Your task to perform on an android device: allow cookies in the chrome app Image 0: 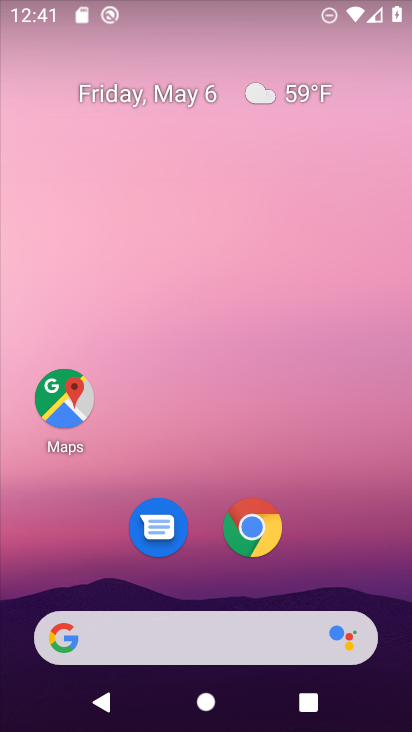
Step 0: click (250, 529)
Your task to perform on an android device: allow cookies in the chrome app Image 1: 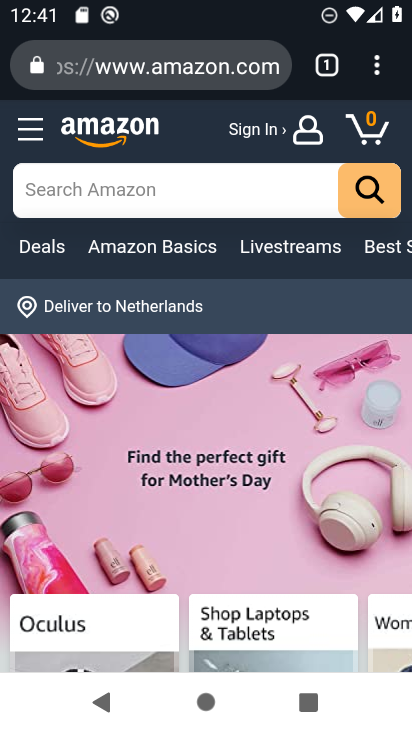
Step 1: click (381, 67)
Your task to perform on an android device: allow cookies in the chrome app Image 2: 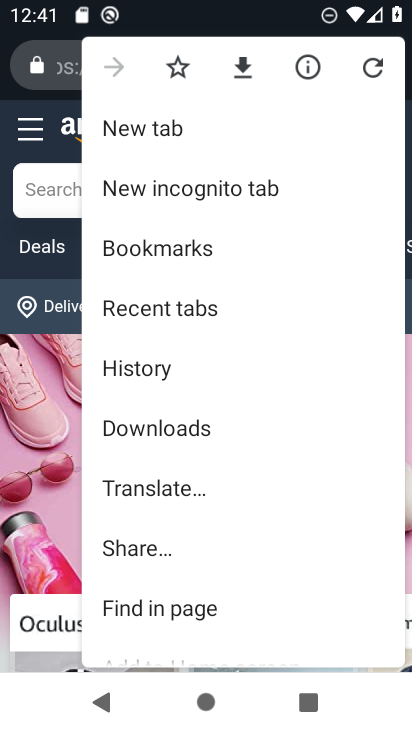
Step 2: drag from (217, 521) to (249, 413)
Your task to perform on an android device: allow cookies in the chrome app Image 3: 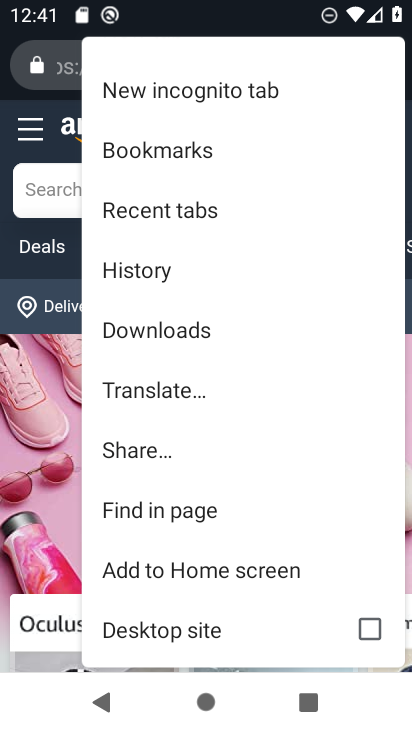
Step 3: drag from (214, 462) to (238, 352)
Your task to perform on an android device: allow cookies in the chrome app Image 4: 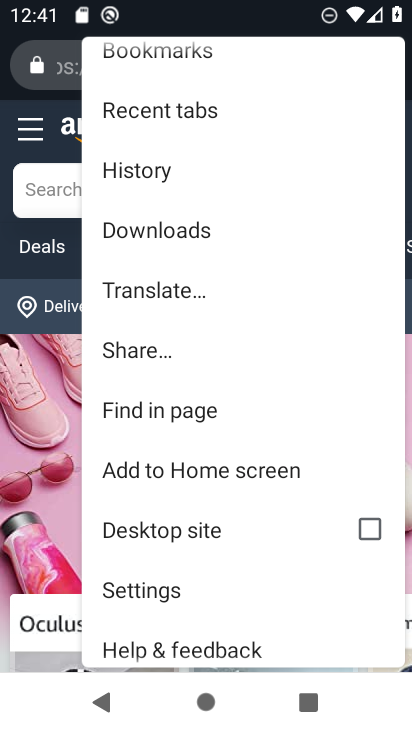
Step 4: click (146, 591)
Your task to perform on an android device: allow cookies in the chrome app Image 5: 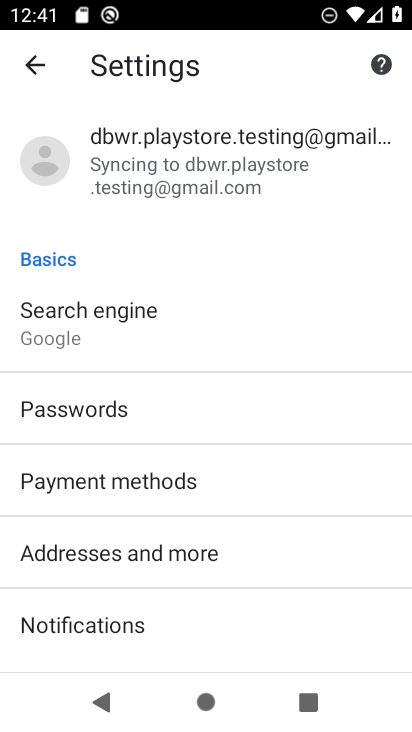
Step 5: drag from (155, 421) to (203, 325)
Your task to perform on an android device: allow cookies in the chrome app Image 6: 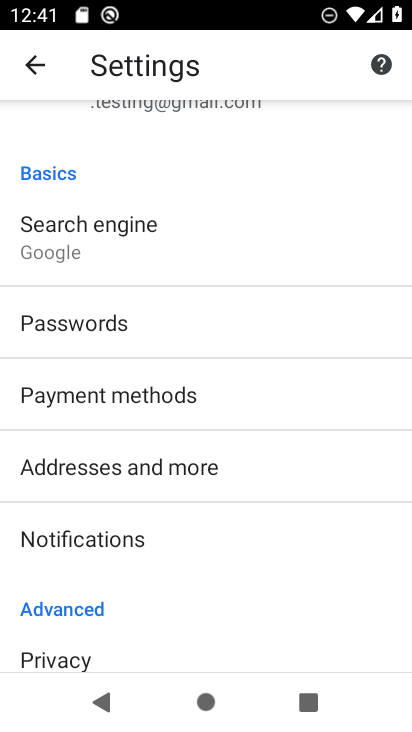
Step 6: drag from (170, 472) to (219, 370)
Your task to perform on an android device: allow cookies in the chrome app Image 7: 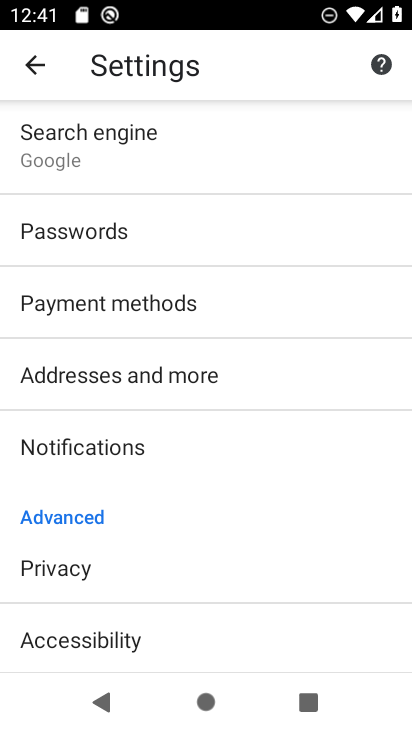
Step 7: drag from (170, 501) to (236, 389)
Your task to perform on an android device: allow cookies in the chrome app Image 8: 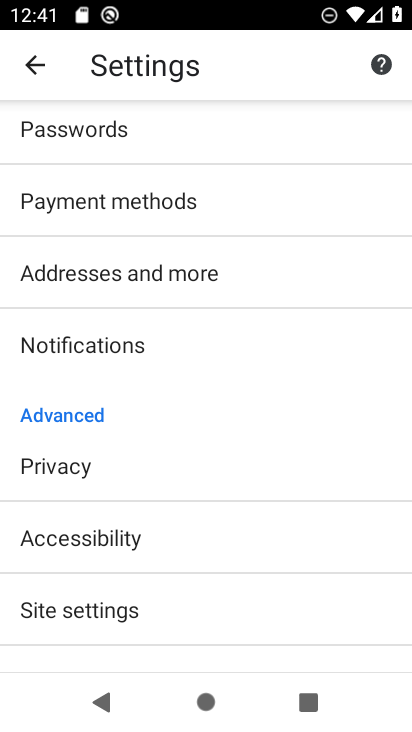
Step 8: drag from (180, 520) to (217, 434)
Your task to perform on an android device: allow cookies in the chrome app Image 9: 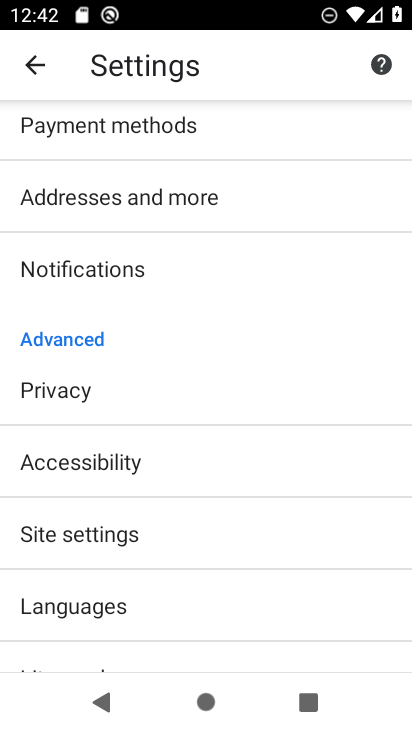
Step 9: click (65, 541)
Your task to perform on an android device: allow cookies in the chrome app Image 10: 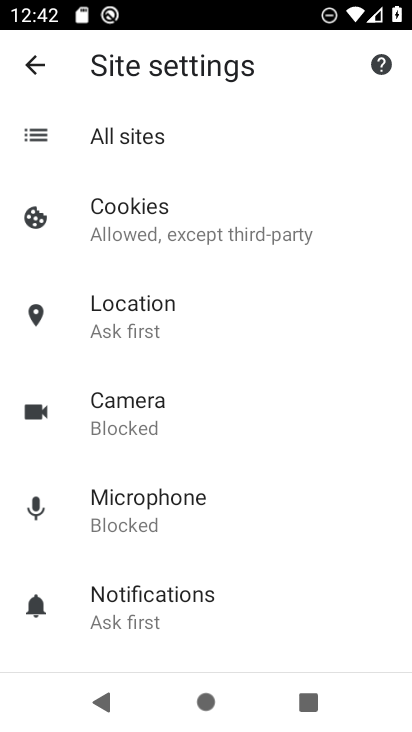
Step 10: click (171, 232)
Your task to perform on an android device: allow cookies in the chrome app Image 11: 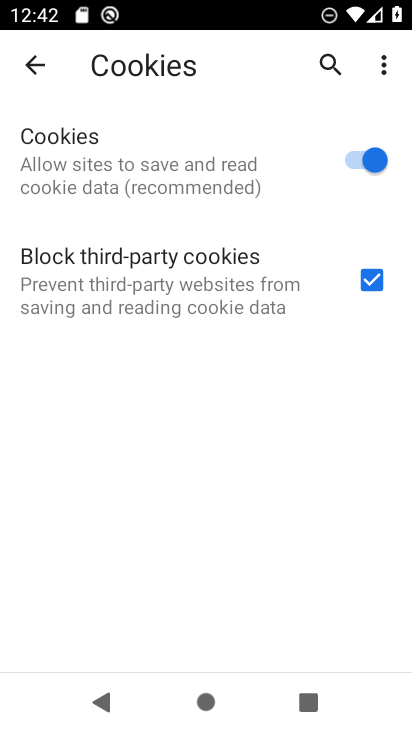
Step 11: task complete